Your task to perform on an android device: Go to internet settings Image 0: 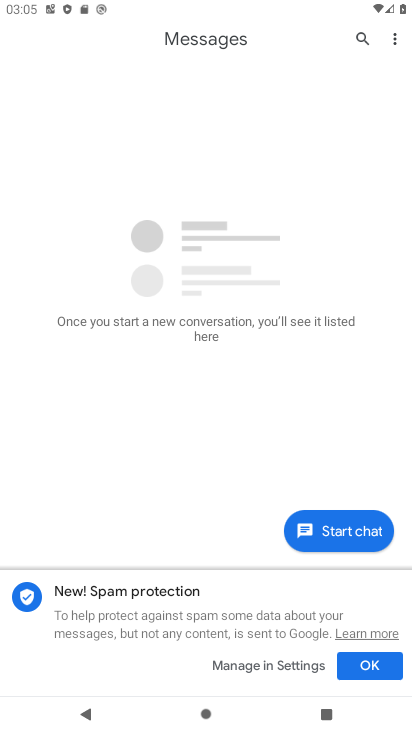
Step 0: press home button
Your task to perform on an android device: Go to internet settings Image 1: 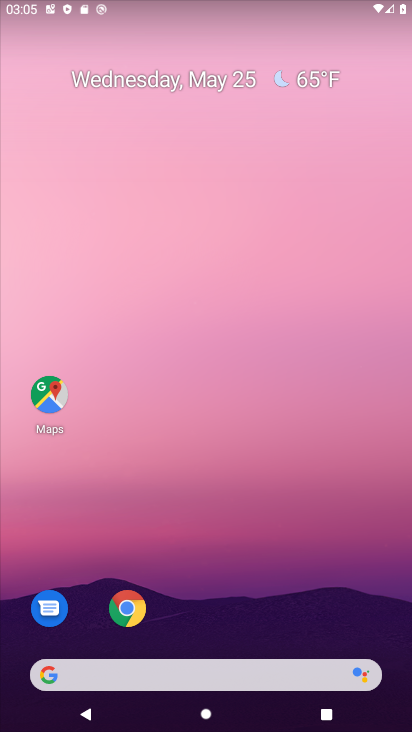
Step 1: drag from (259, 536) to (241, 18)
Your task to perform on an android device: Go to internet settings Image 2: 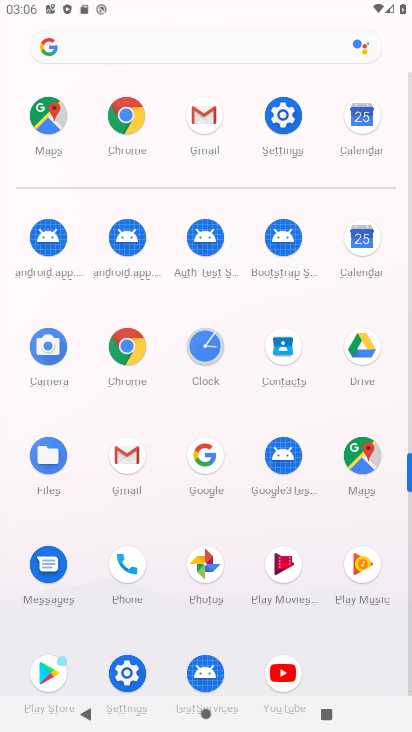
Step 2: click (287, 115)
Your task to perform on an android device: Go to internet settings Image 3: 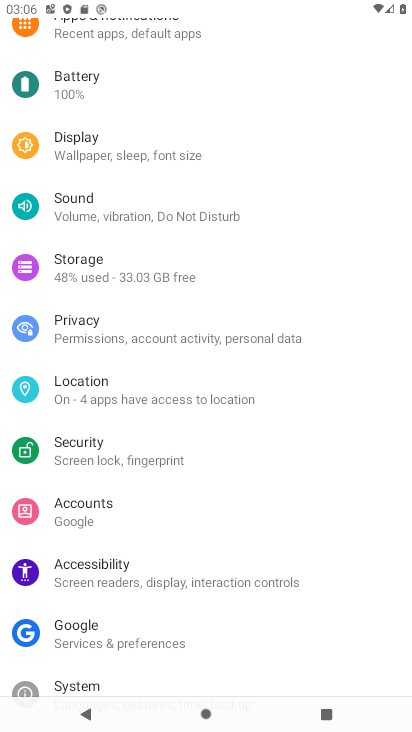
Step 3: drag from (297, 151) to (294, 469)
Your task to perform on an android device: Go to internet settings Image 4: 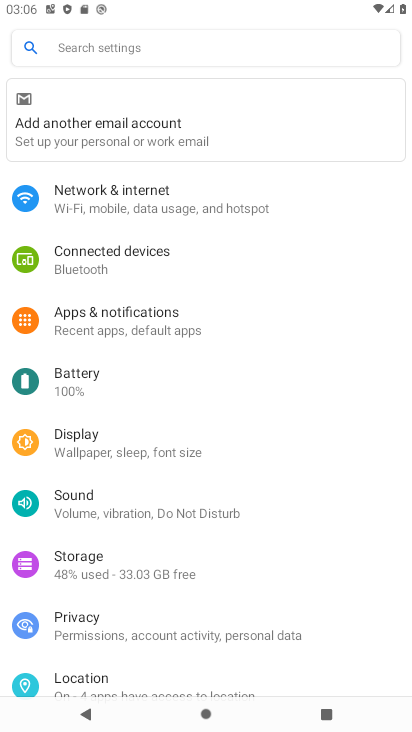
Step 4: click (108, 205)
Your task to perform on an android device: Go to internet settings Image 5: 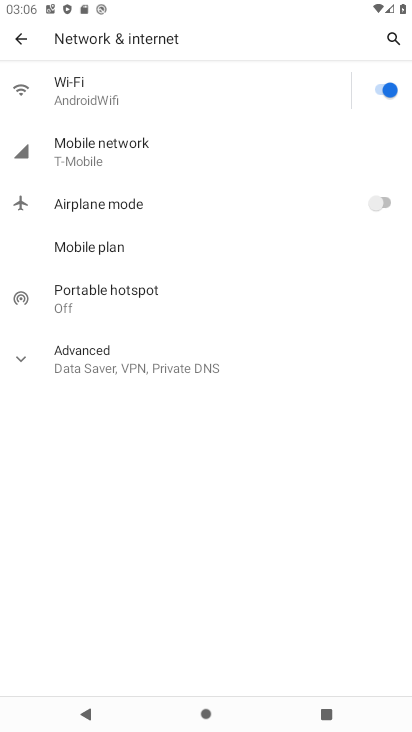
Step 5: task complete